Your task to perform on an android device: Show me popular games on the Play Store Image 0: 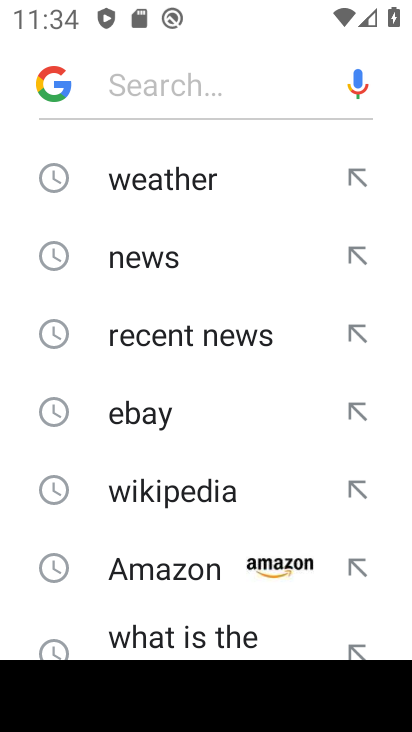
Step 0: press home button
Your task to perform on an android device: Show me popular games on the Play Store Image 1: 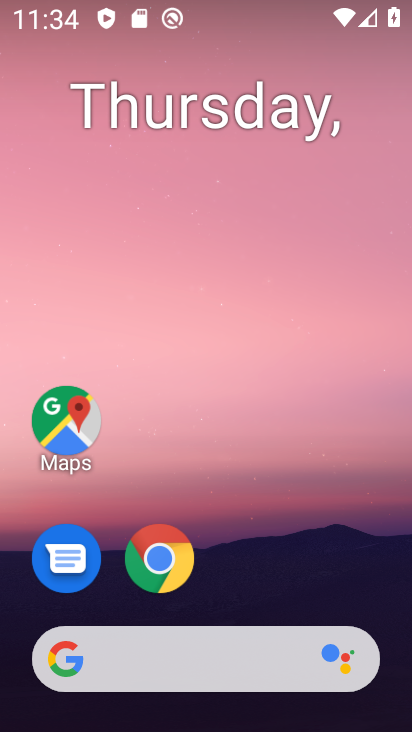
Step 1: drag from (368, 563) to (365, 99)
Your task to perform on an android device: Show me popular games on the Play Store Image 2: 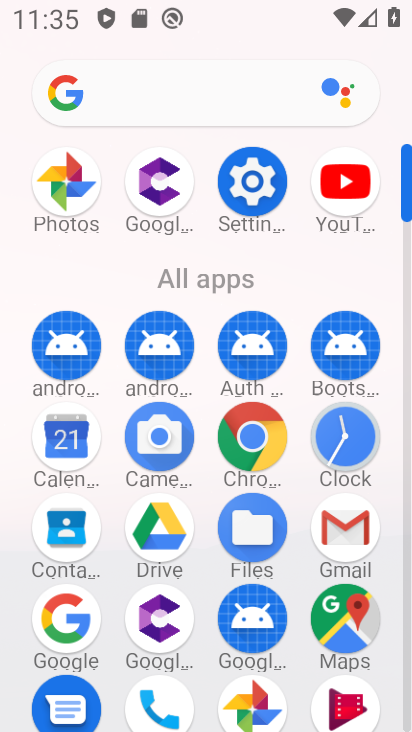
Step 2: drag from (393, 485) to (405, 250)
Your task to perform on an android device: Show me popular games on the Play Store Image 3: 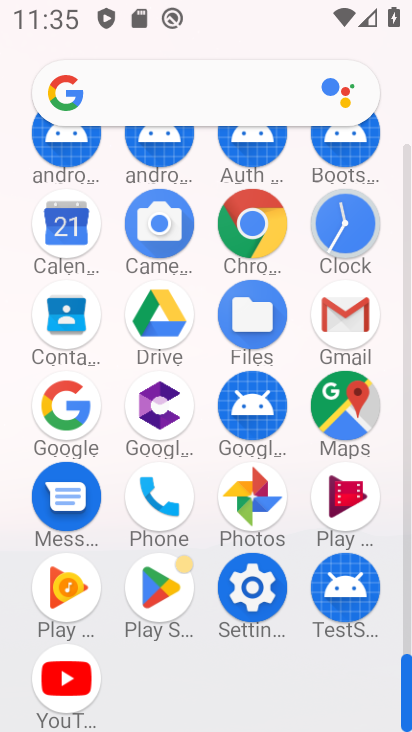
Step 3: click (171, 577)
Your task to perform on an android device: Show me popular games on the Play Store Image 4: 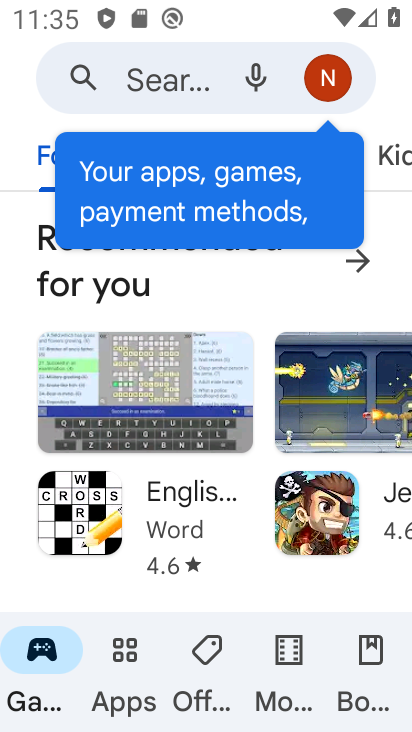
Step 4: task complete